Your task to perform on an android device: turn off priority inbox in the gmail app Image 0: 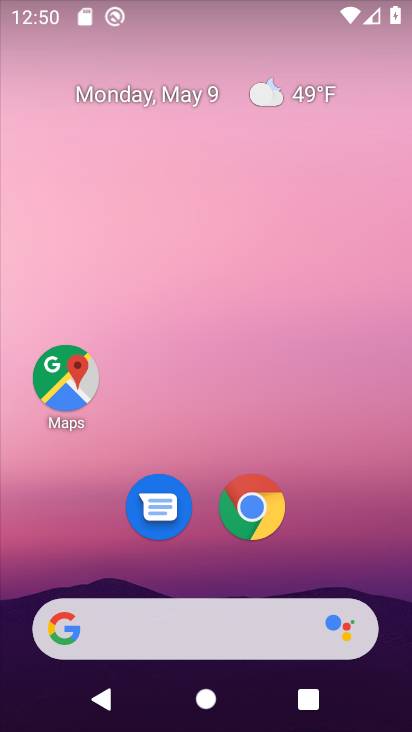
Step 0: click (255, 242)
Your task to perform on an android device: turn off priority inbox in the gmail app Image 1: 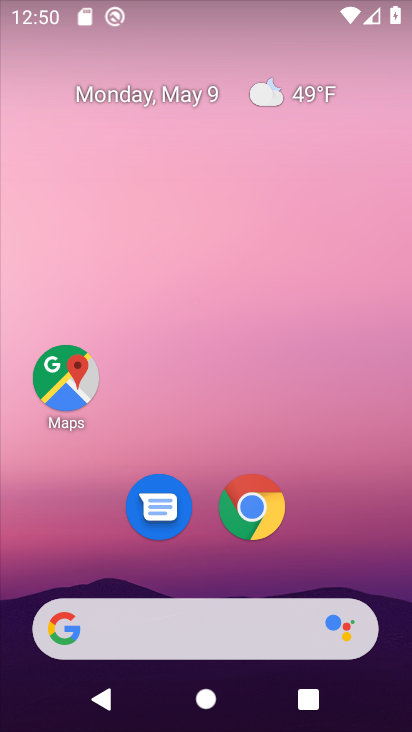
Step 1: drag from (191, 513) to (243, 184)
Your task to perform on an android device: turn off priority inbox in the gmail app Image 2: 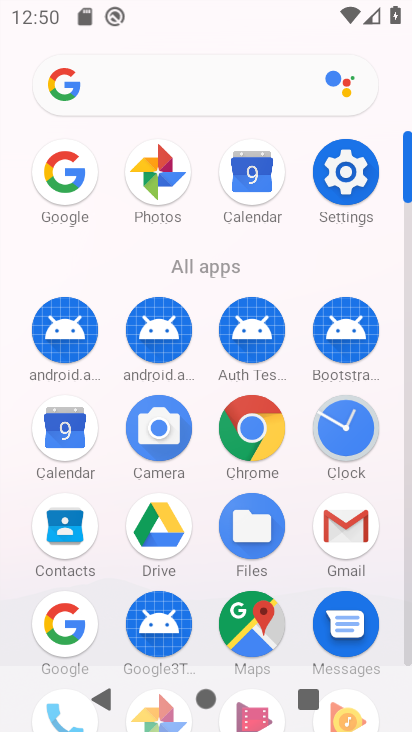
Step 2: click (334, 531)
Your task to perform on an android device: turn off priority inbox in the gmail app Image 3: 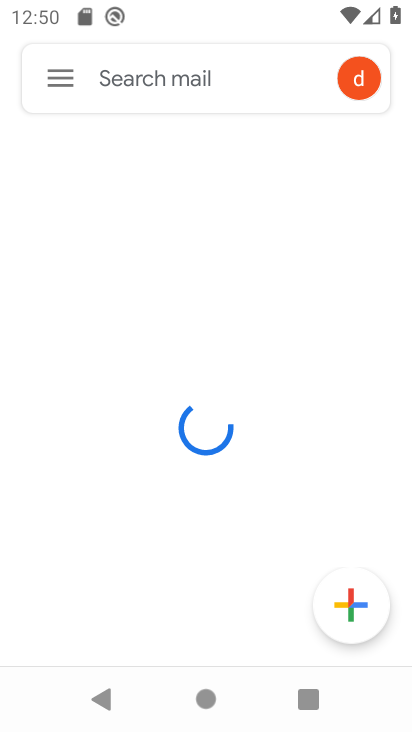
Step 3: click (62, 68)
Your task to perform on an android device: turn off priority inbox in the gmail app Image 4: 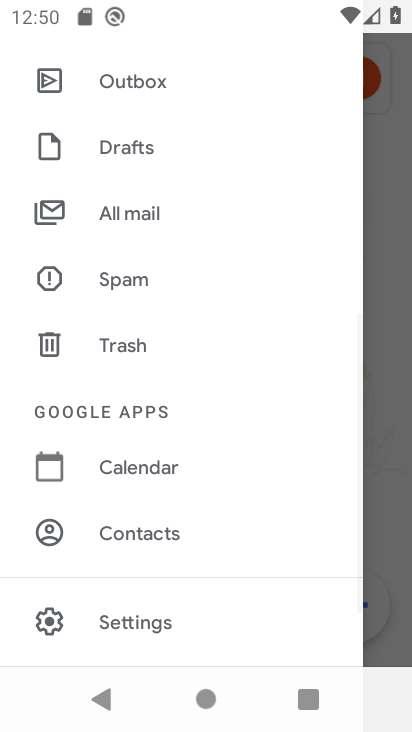
Step 4: click (141, 624)
Your task to perform on an android device: turn off priority inbox in the gmail app Image 5: 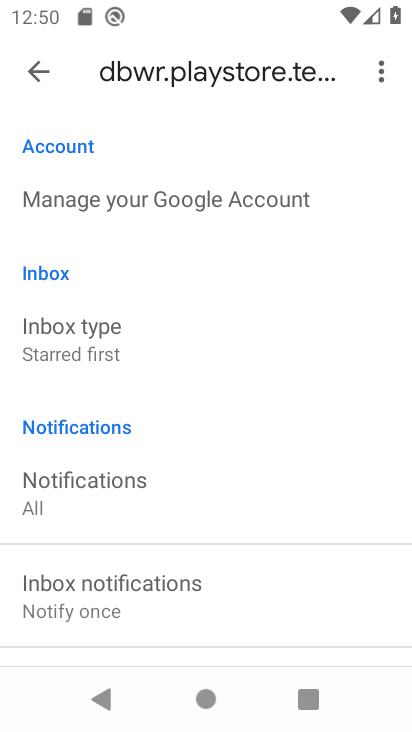
Step 5: click (77, 339)
Your task to perform on an android device: turn off priority inbox in the gmail app Image 6: 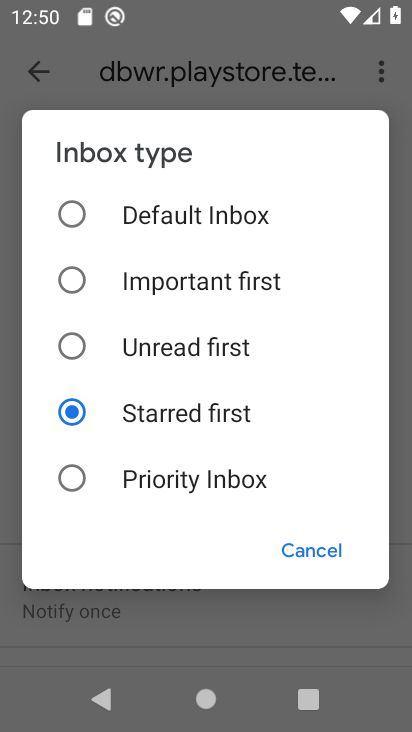
Step 6: click (298, 547)
Your task to perform on an android device: turn off priority inbox in the gmail app Image 7: 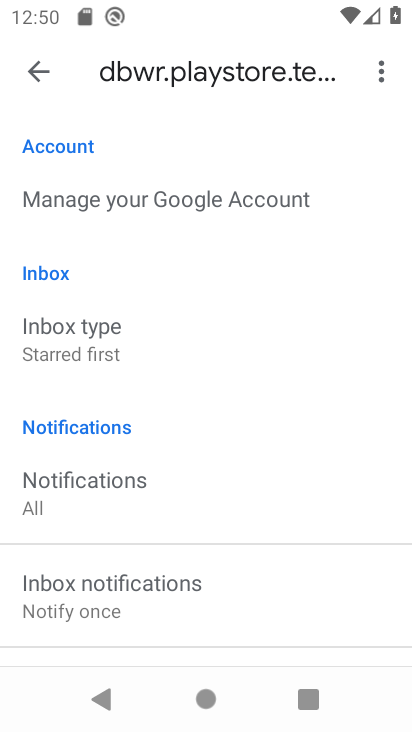
Step 7: task complete